Your task to perform on an android device: all mails in gmail Image 0: 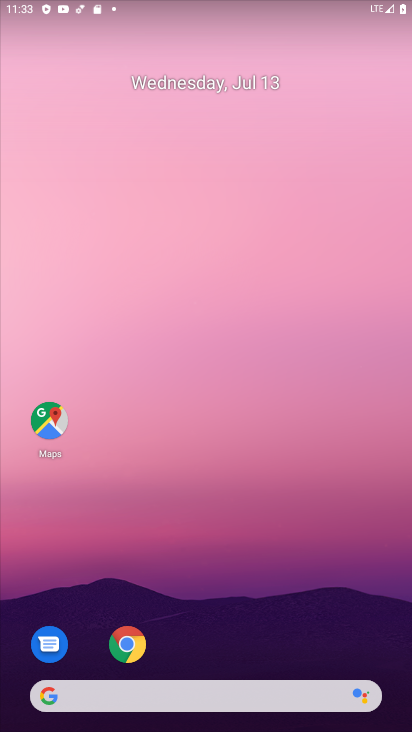
Step 0: drag from (260, 693) to (263, 213)
Your task to perform on an android device: all mails in gmail Image 1: 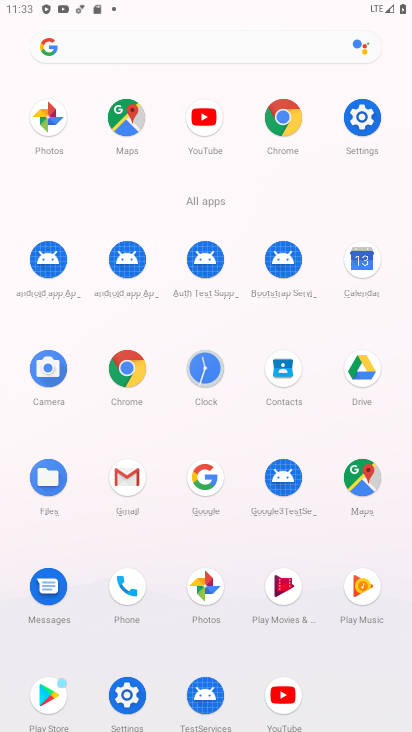
Step 1: click (137, 487)
Your task to perform on an android device: all mails in gmail Image 2: 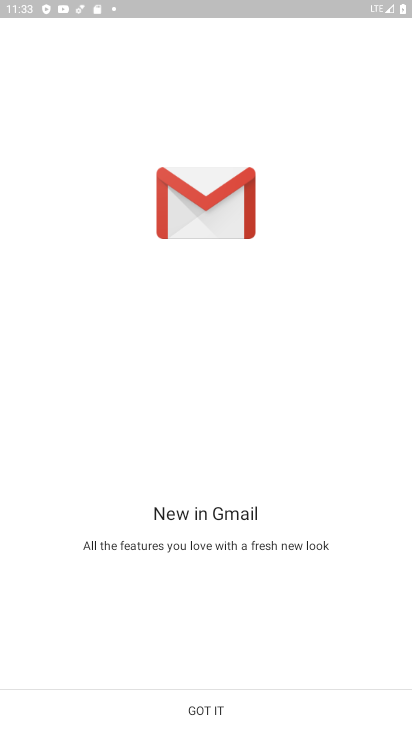
Step 2: click (232, 715)
Your task to perform on an android device: all mails in gmail Image 3: 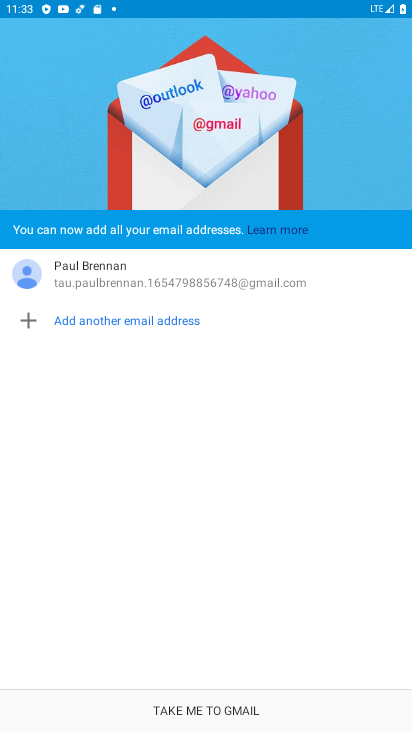
Step 3: click (232, 715)
Your task to perform on an android device: all mails in gmail Image 4: 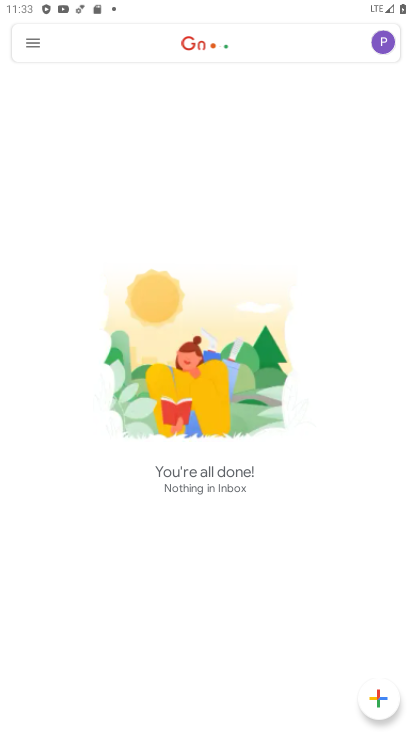
Step 4: click (40, 38)
Your task to perform on an android device: all mails in gmail Image 5: 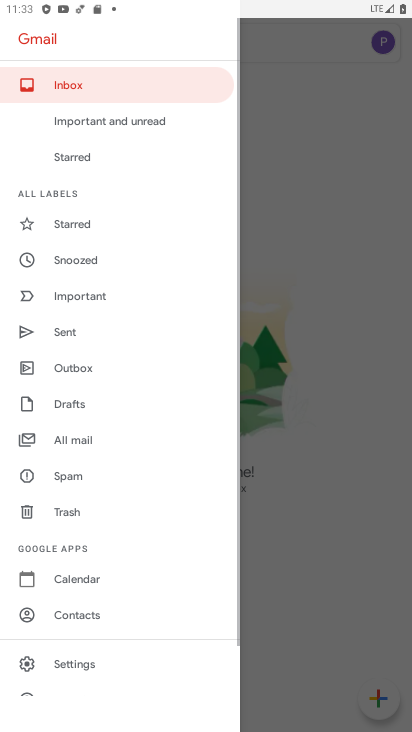
Step 5: drag from (99, 641) to (136, 416)
Your task to perform on an android device: all mails in gmail Image 6: 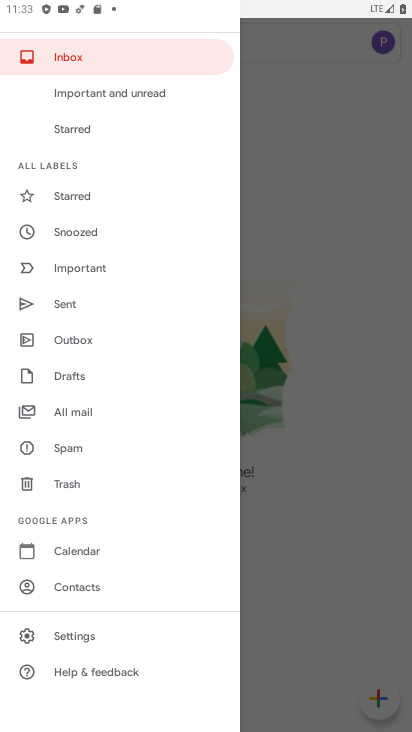
Step 6: click (99, 418)
Your task to perform on an android device: all mails in gmail Image 7: 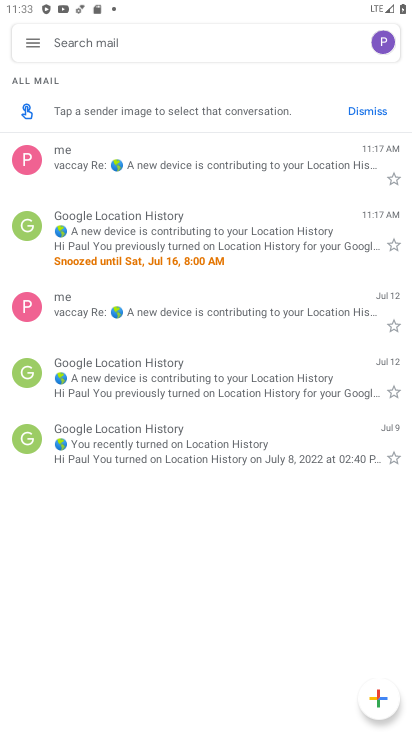
Step 7: task complete